Your task to perform on an android device: What is the recent news? Image 0: 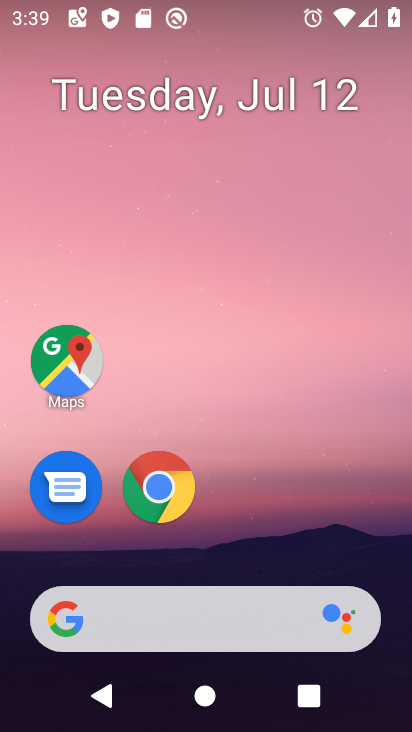
Step 0: drag from (224, 433) to (255, 238)
Your task to perform on an android device: What is the recent news? Image 1: 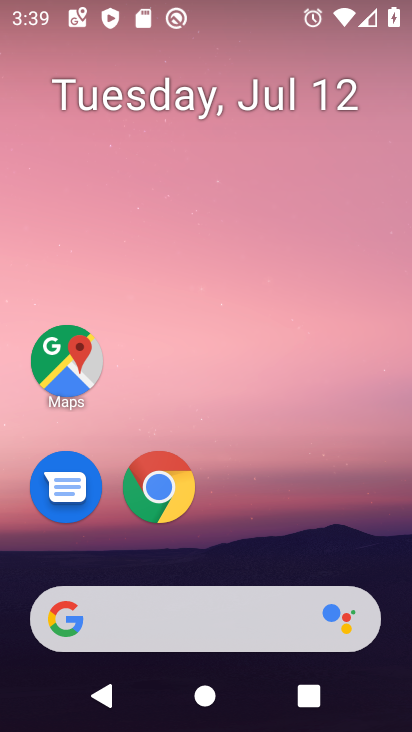
Step 1: drag from (168, 583) to (210, 190)
Your task to perform on an android device: What is the recent news? Image 2: 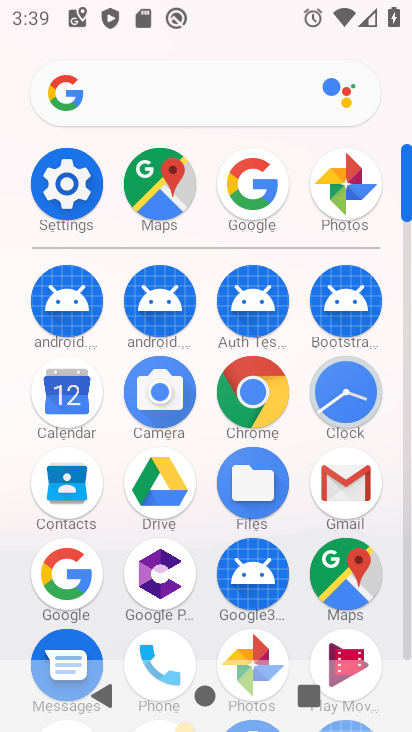
Step 2: click (247, 183)
Your task to perform on an android device: What is the recent news? Image 3: 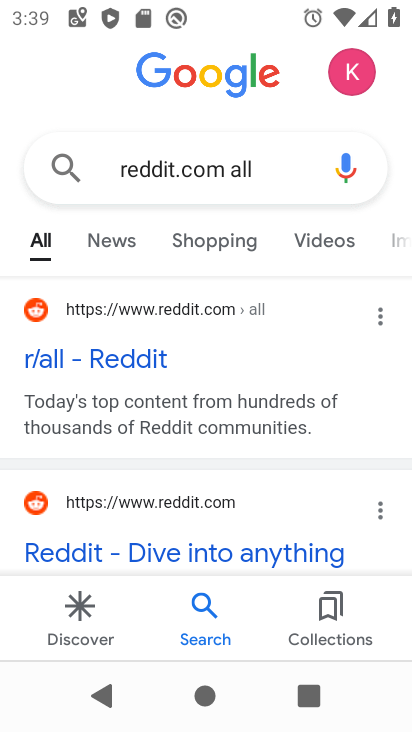
Step 3: click (214, 174)
Your task to perform on an android device: What is the recent news? Image 4: 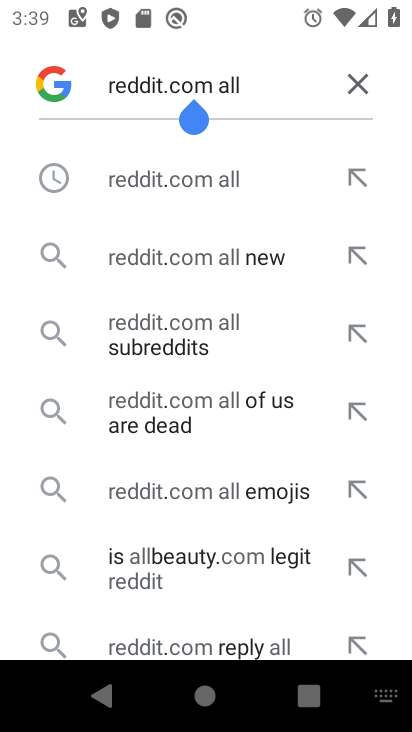
Step 4: click (350, 87)
Your task to perform on an android device: What is the recent news? Image 5: 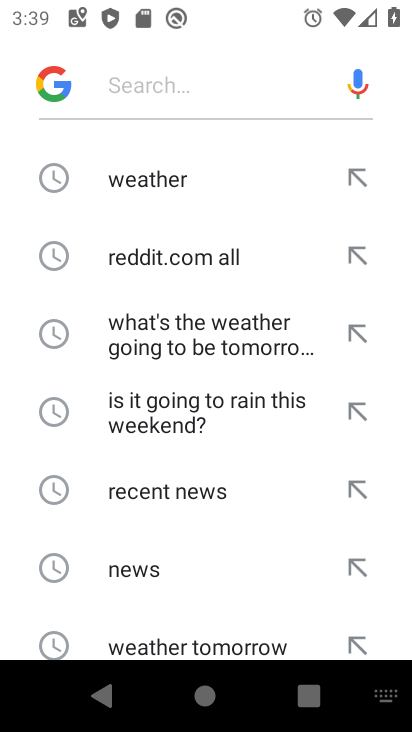
Step 5: click (154, 494)
Your task to perform on an android device: What is the recent news? Image 6: 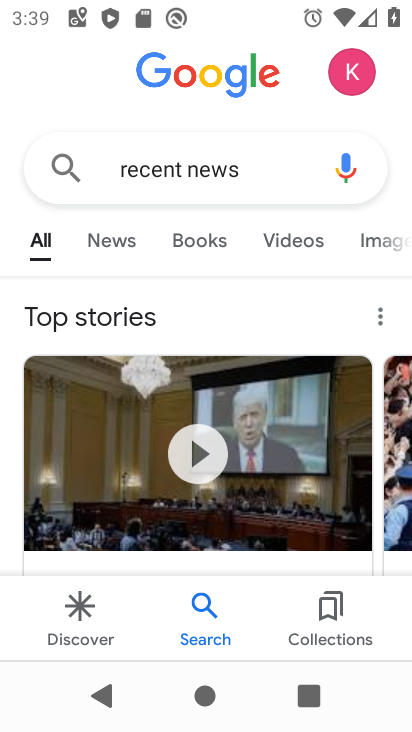
Step 6: task complete